Your task to perform on an android device: check android version Image 0: 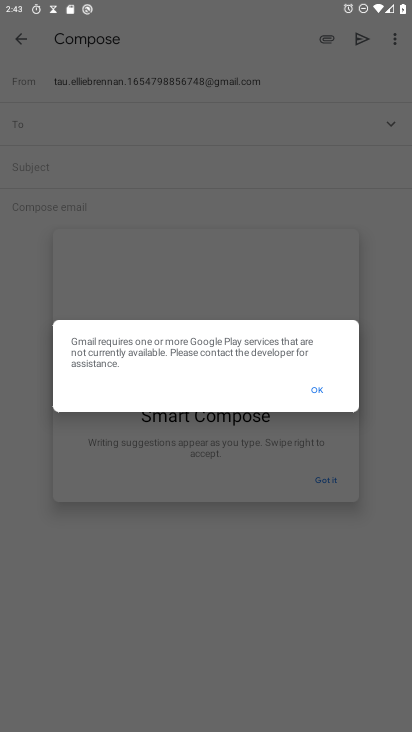
Step 0: press home button
Your task to perform on an android device: check android version Image 1: 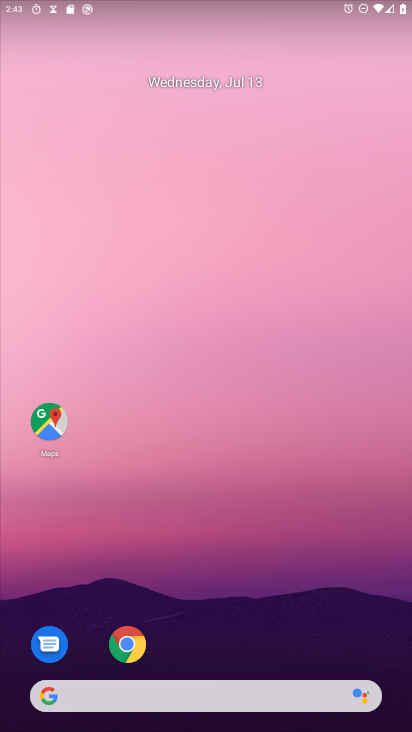
Step 1: drag from (263, 611) to (276, 117)
Your task to perform on an android device: check android version Image 2: 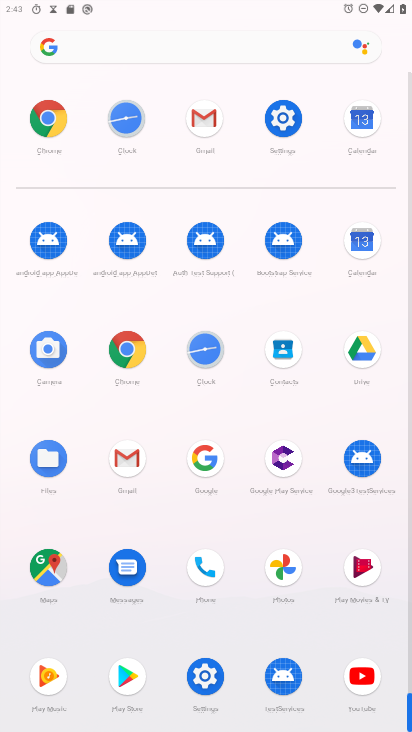
Step 2: click (284, 106)
Your task to perform on an android device: check android version Image 3: 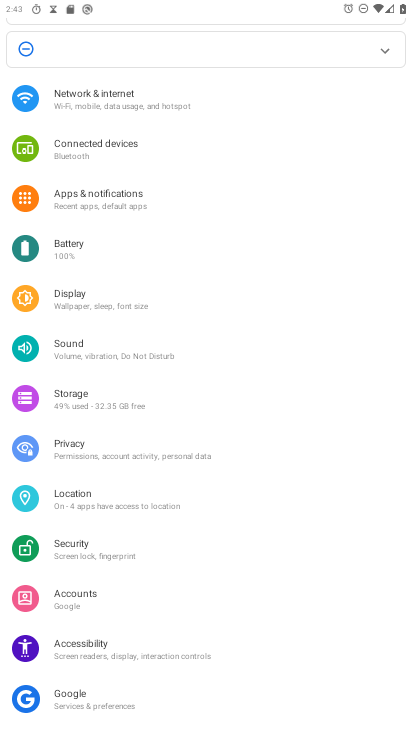
Step 3: drag from (115, 616) to (154, 184)
Your task to perform on an android device: check android version Image 4: 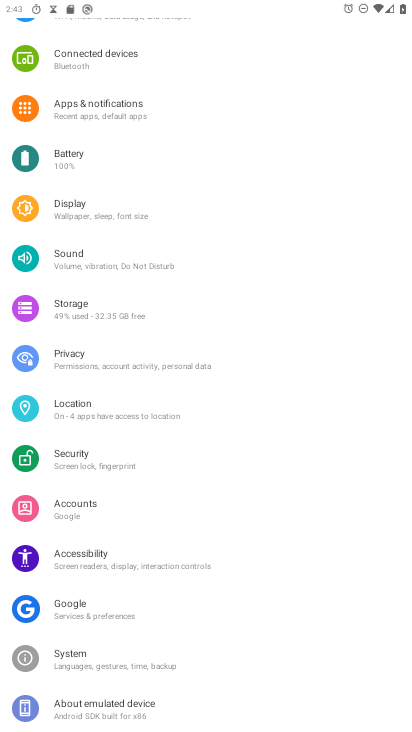
Step 4: click (84, 704)
Your task to perform on an android device: check android version Image 5: 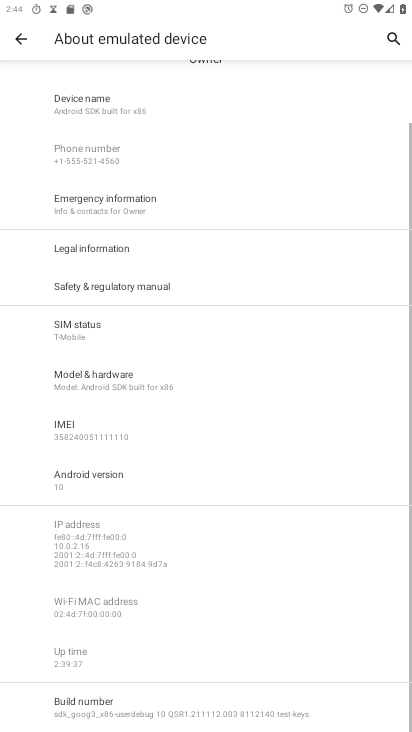
Step 5: click (96, 479)
Your task to perform on an android device: check android version Image 6: 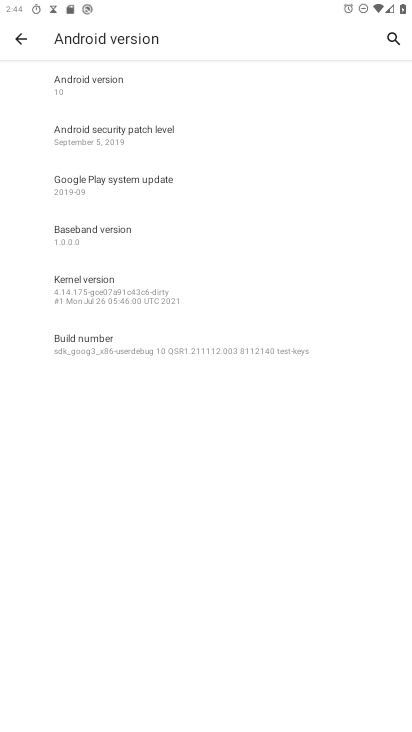
Step 6: task complete